Your task to perform on an android device: Open CNN.com Image 0: 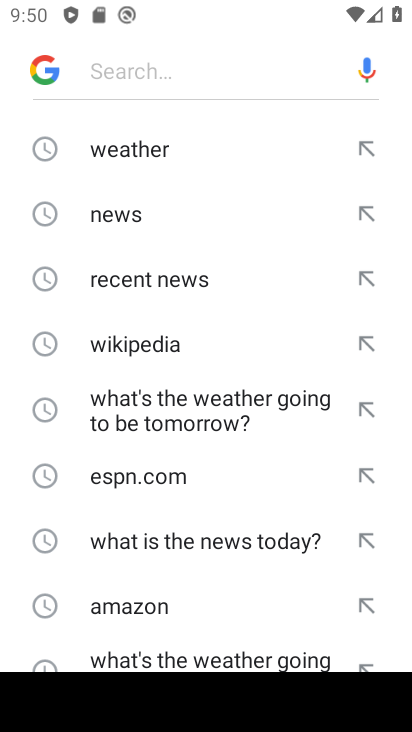
Step 0: press home button
Your task to perform on an android device: Open CNN.com Image 1: 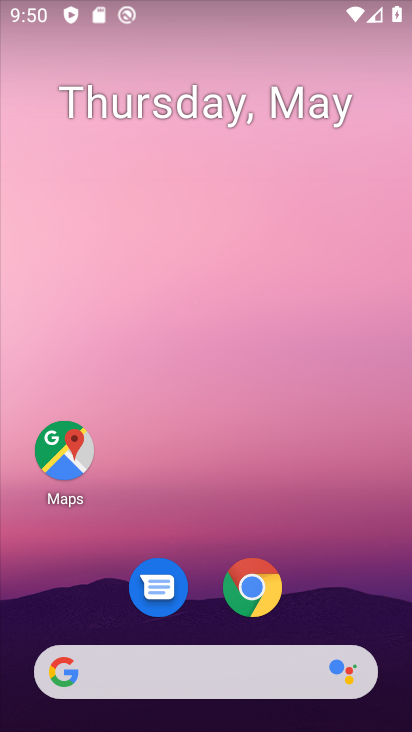
Step 1: click (259, 572)
Your task to perform on an android device: Open CNN.com Image 2: 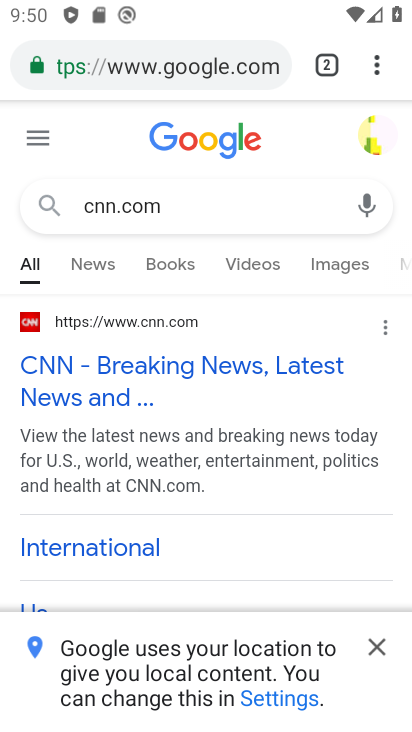
Step 2: task complete